Your task to perform on an android device: Show me productivity apps on the Play Store Image 0: 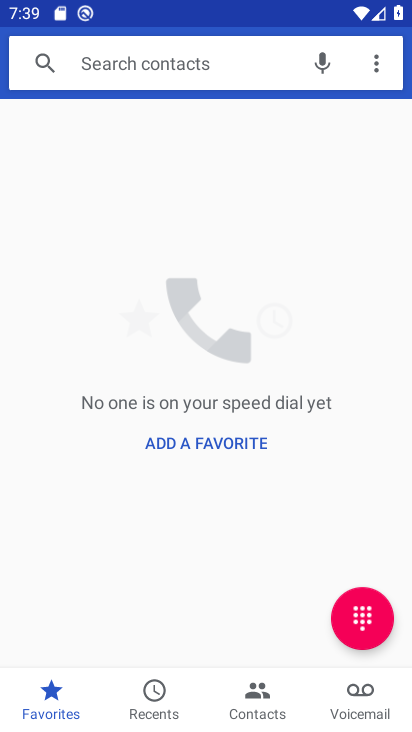
Step 0: press home button
Your task to perform on an android device: Show me productivity apps on the Play Store Image 1: 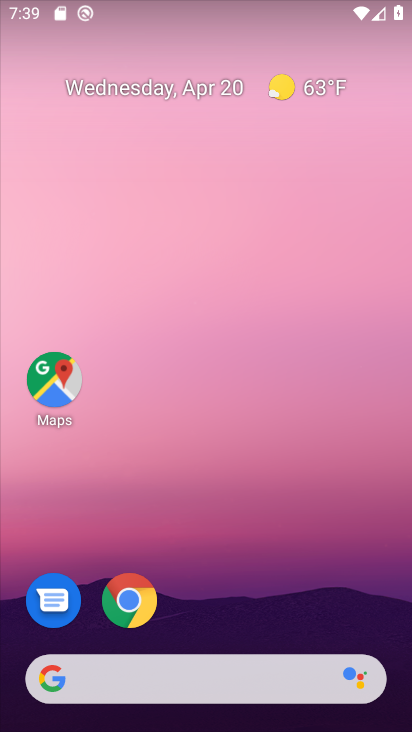
Step 1: drag from (221, 614) to (206, 139)
Your task to perform on an android device: Show me productivity apps on the Play Store Image 2: 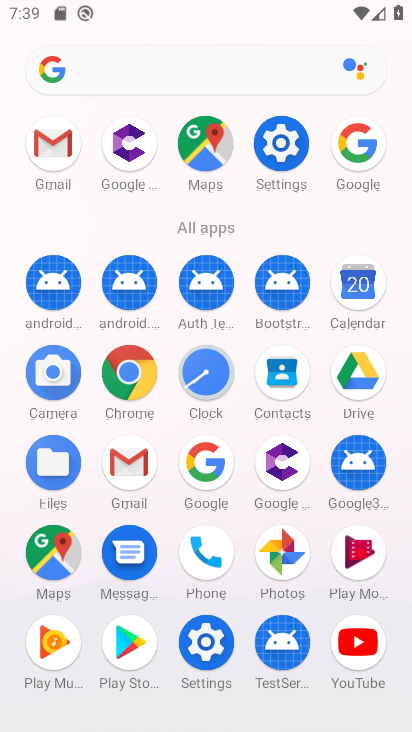
Step 2: click (128, 638)
Your task to perform on an android device: Show me productivity apps on the Play Store Image 3: 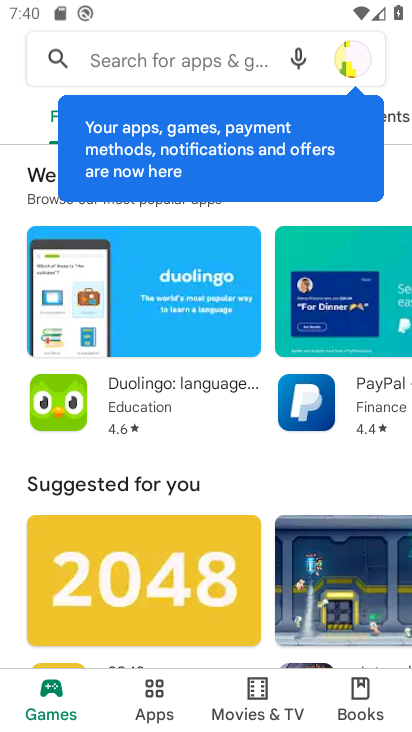
Step 3: click (179, 54)
Your task to perform on an android device: Show me productivity apps on the Play Store Image 4: 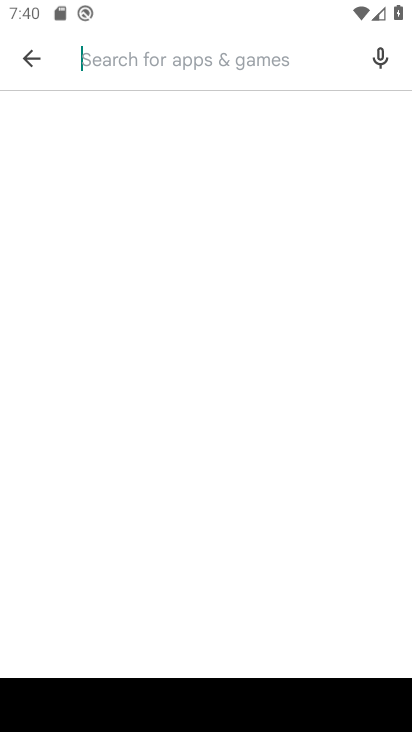
Step 4: type "productivity apps"
Your task to perform on an android device: Show me productivity apps on the Play Store Image 5: 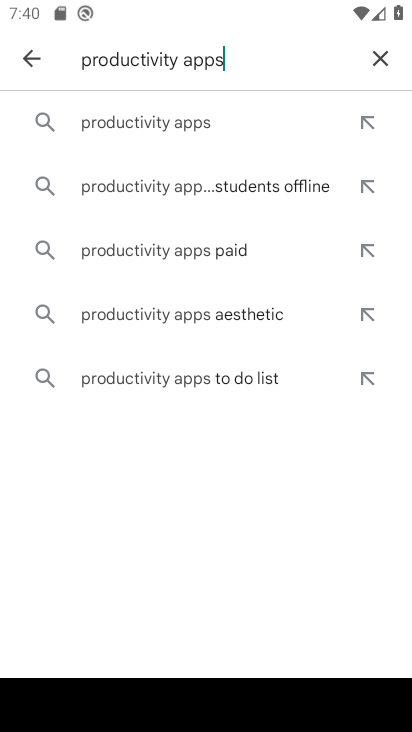
Step 5: click (173, 115)
Your task to perform on an android device: Show me productivity apps on the Play Store Image 6: 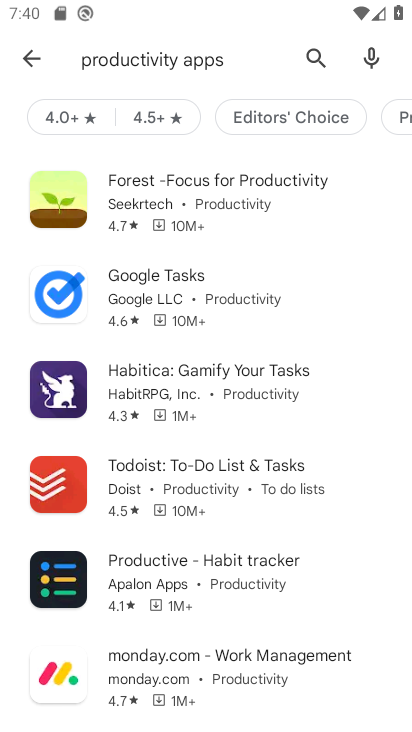
Step 6: task complete